Your task to perform on an android device: Open my contact list Image 0: 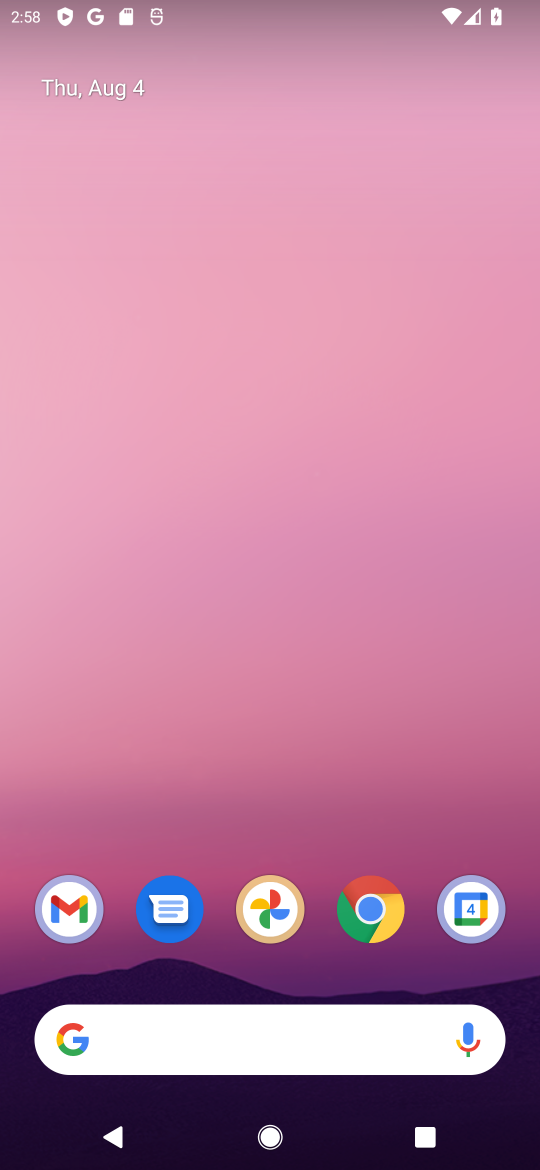
Step 0: drag from (276, 1039) to (520, 147)
Your task to perform on an android device: Open my contact list Image 1: 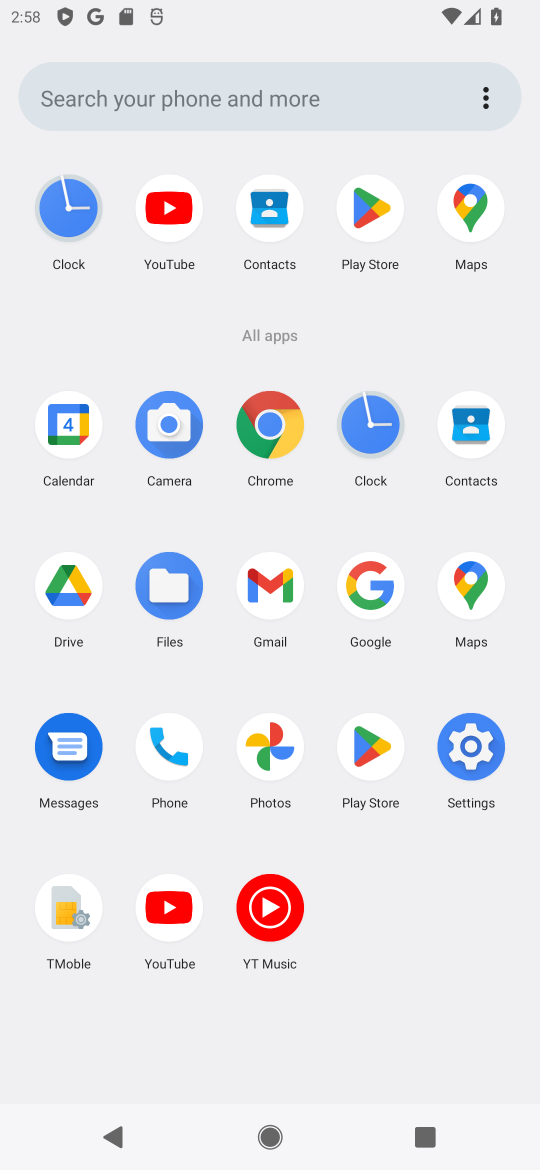
Step 1: click (471, 428)
Your task to perform on an android device: Open my contact list Image 2: 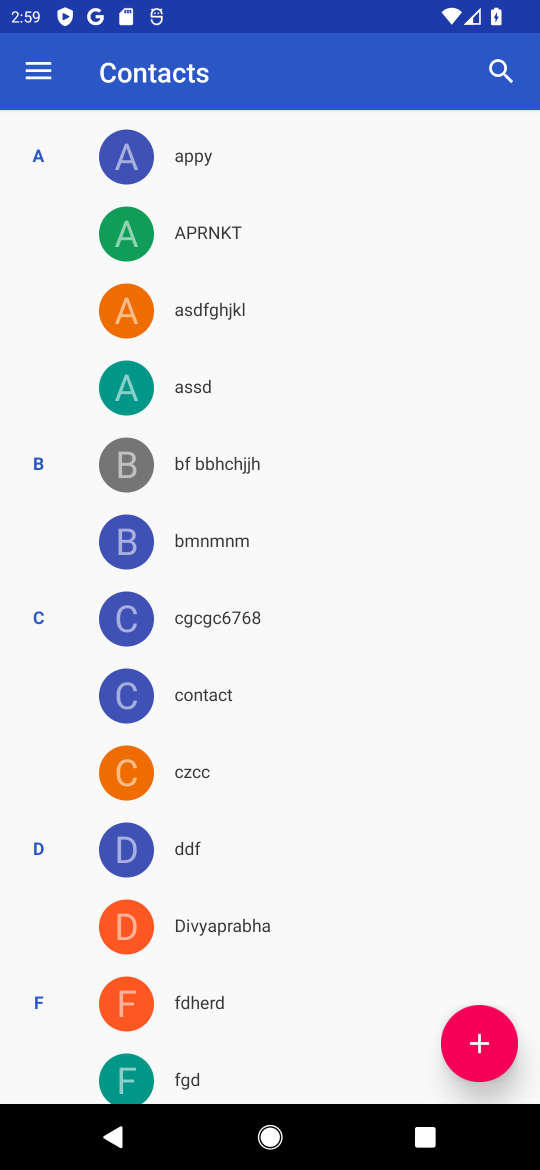
Step 2: task complete